Your task to perform on an android device: Go to eBay Image 0: 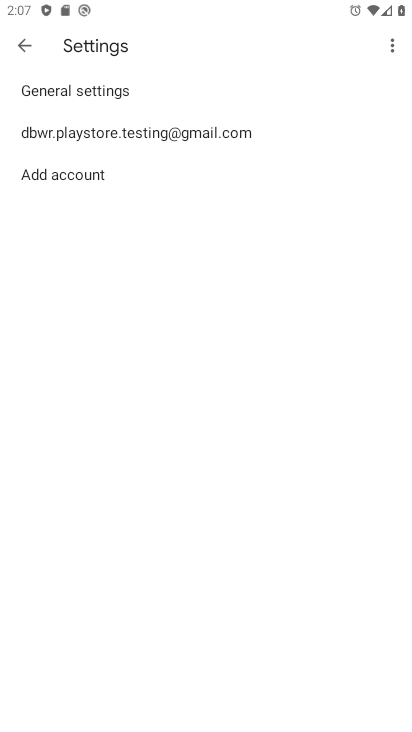
Step 0: press home button
Your task to perform on an android device: Go to eBay Image 1: 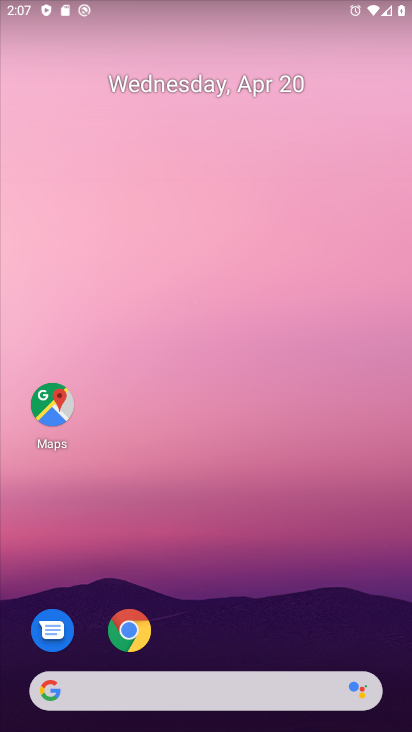
Step 1: click (134, 625)
Your task to perform on an android device: Go to eBay Image 2: 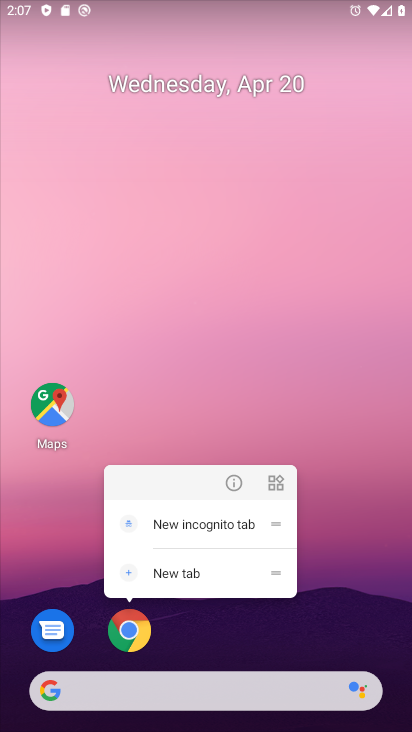
Step 2: click (134, 625)
Your task to perform on an android device: Go to eBay Image 3: 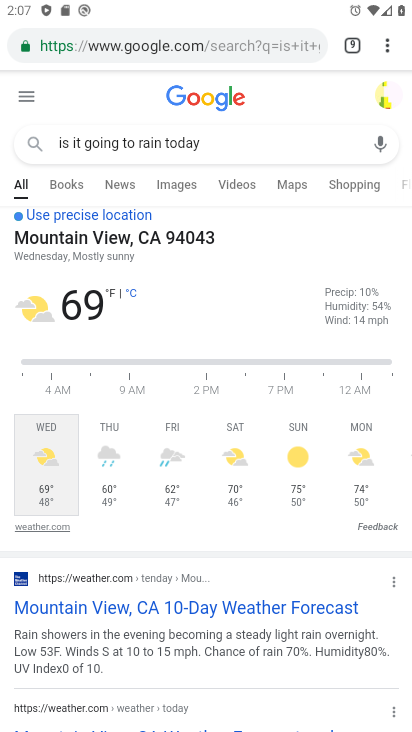
Step 3: click (352, 43)
Your task to perform on an android device: Go to eBay Image 4: 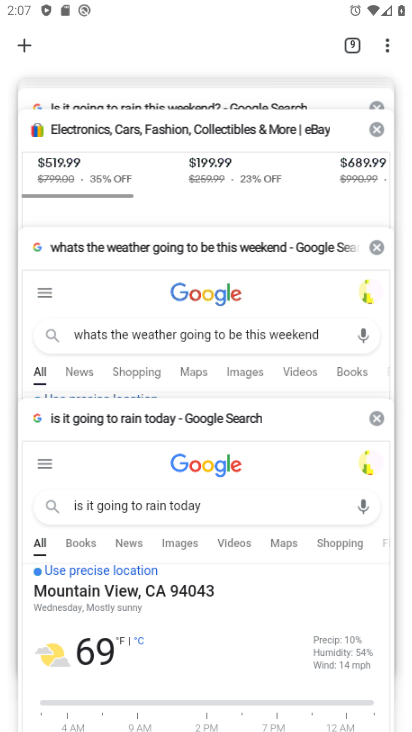
Step 4: drag from (129, 254) to (137, 435)
Your task to perform on an android device: Go to eBay Image 5: 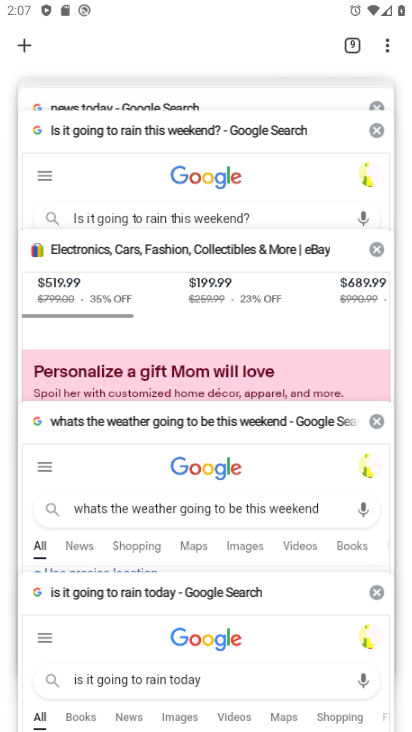
Step 5: click (143, 314)
Your task to perform on an android device: Go to eBay Image 6: 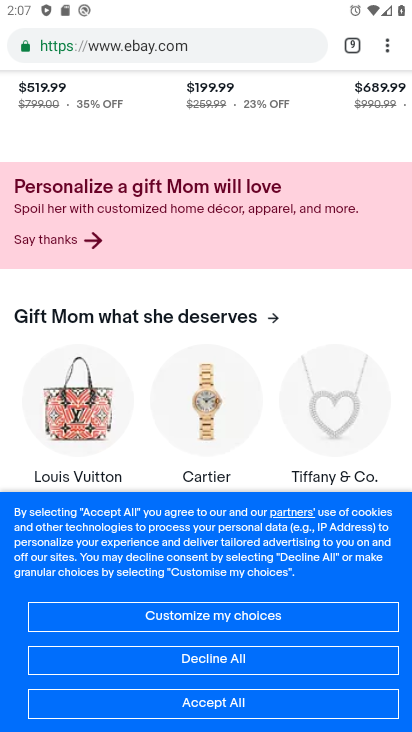
Step 6: task complete